Your task to perform on an android device: open chrome and create a bookmark for the current page Image 0: 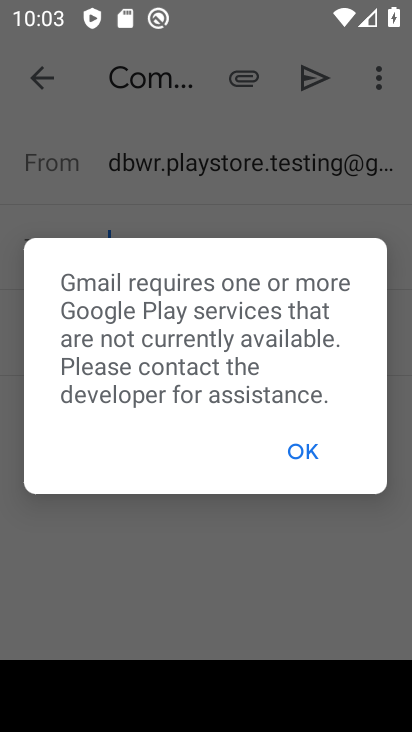
Step 0: click (289, 452)
Your task to perform on an android device: open chrome and create a bookmark for the current page Image 1: 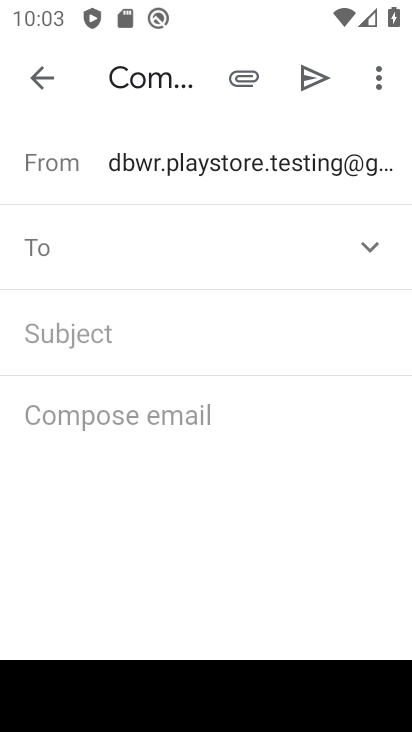
Step 1: click (32, 89)
Your task to perform on an android device: open chrome and create a bookmark for the current page Image 2: 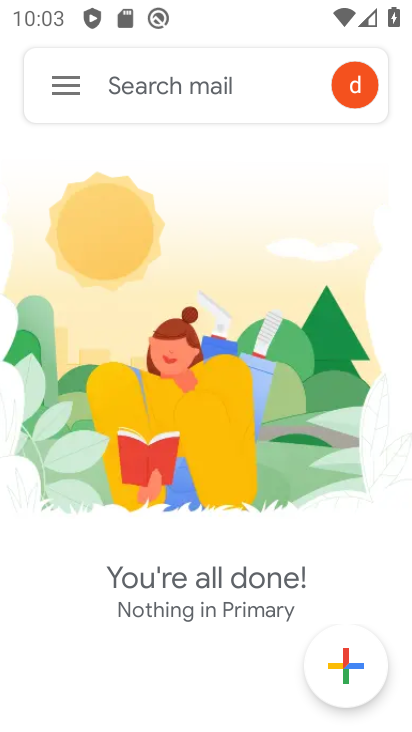
Step 2: press back button
Your task to perform on an android device: open chrome and create a bookmark for the current page Image 3: 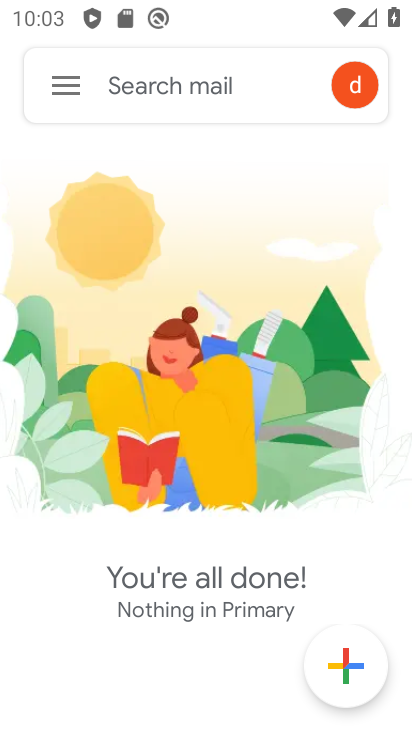
Step 3: press back button
Your task to perform on an android device: open chrome and create a bookmark for the current page Image 4: 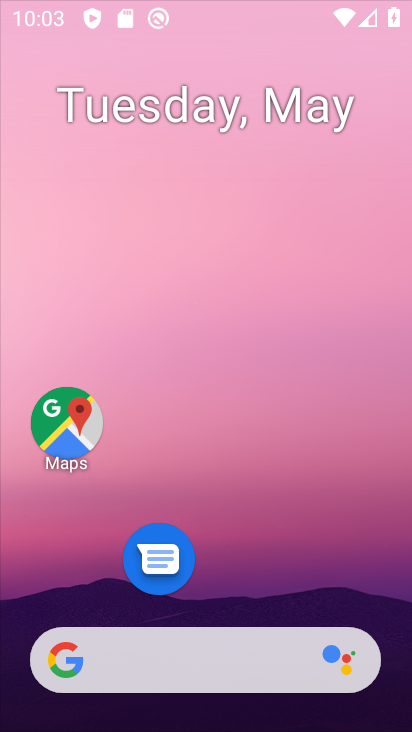
Step 4: press back button
Your task to perform on an android device: open chrome and create a bookmark for the current page Image 5: 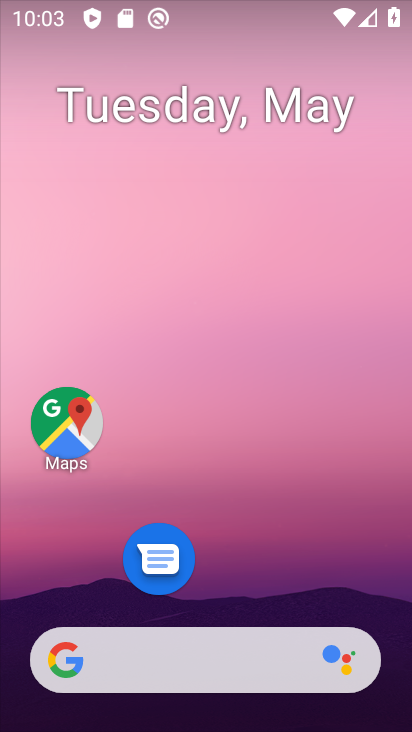
Step 5: drag from (271, 427) to (212, 11)
Your task to perform on an android device: open chrome and create a bookmark for the current page Image 6: 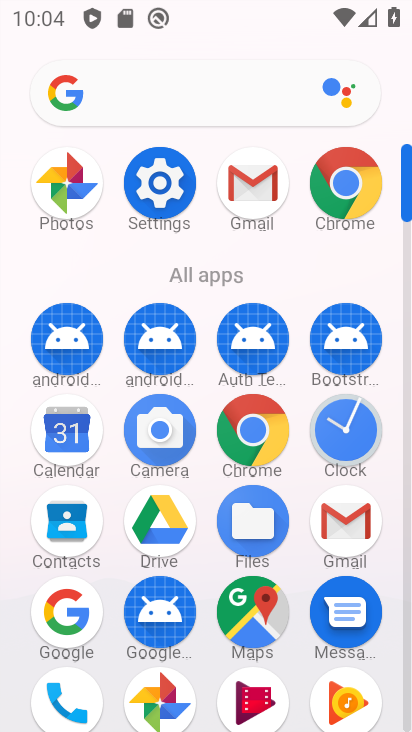
Step 6: click (348, 187)
Your task to perform on an android device: open chrome and create a bookmark for the current page Image 7: 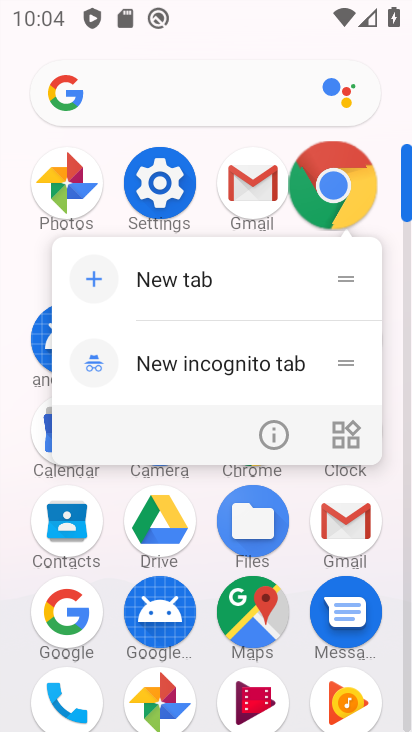
Step 7: click (344, 185)
Your task to perform on an android device: open chrome and create a bookmark for the current page Image 8: 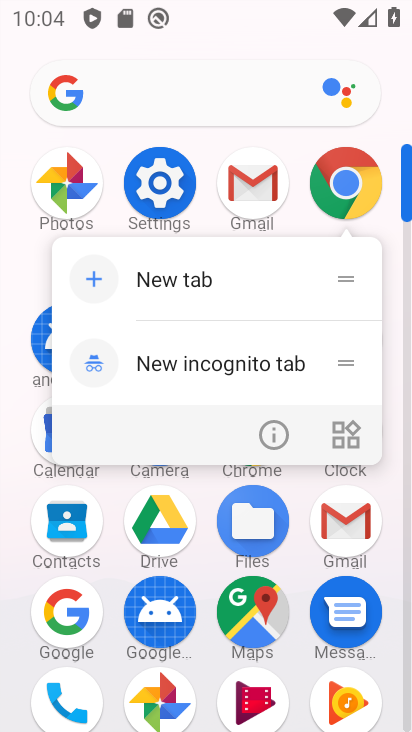
Step 8: click (159, 279)
Your task to perform on an android device: open chrome and create a bookmark for the current page Image 9: 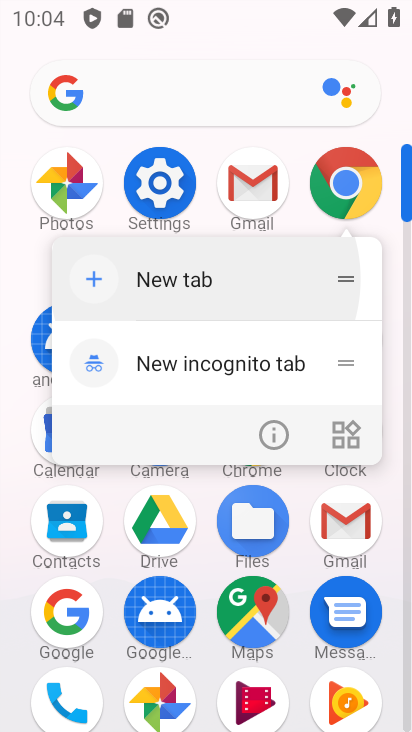
Step 9: click (159, 279)
Your task to perform on an android device: open chrome and create a bookmark for the current page Image 10: 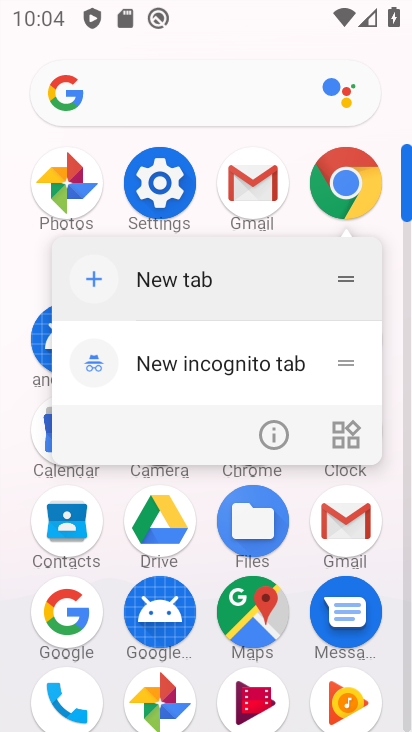
Step 10: click (191, 279)
Your task to perform on an android device: open chrome and create a bookmark for the current page Image 11: 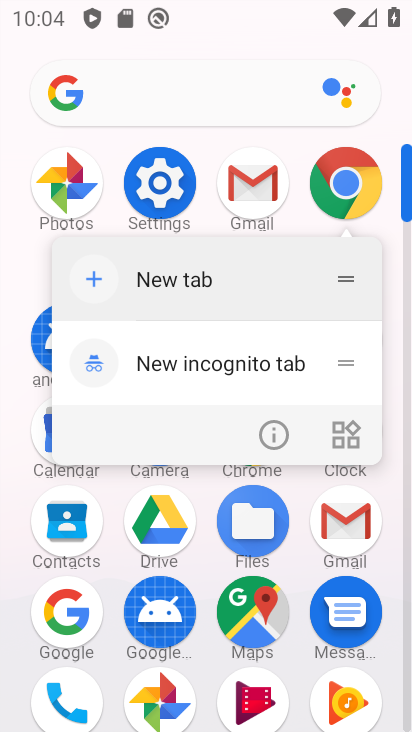
Step 11: click (191, 279)
Your task to perform on an android device: open chrome and create a bookmark for the current page Image 12: 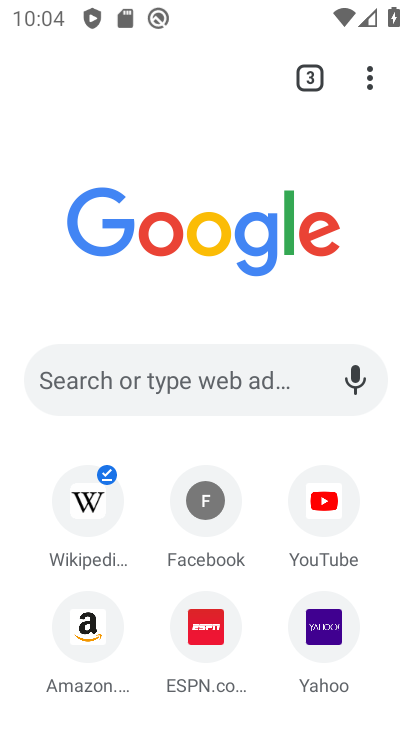
Step 12: drag from (370, 87) to (117, 299)
Your task to perform on an android device: open chrome and create a bookmark for the current page Image 13: 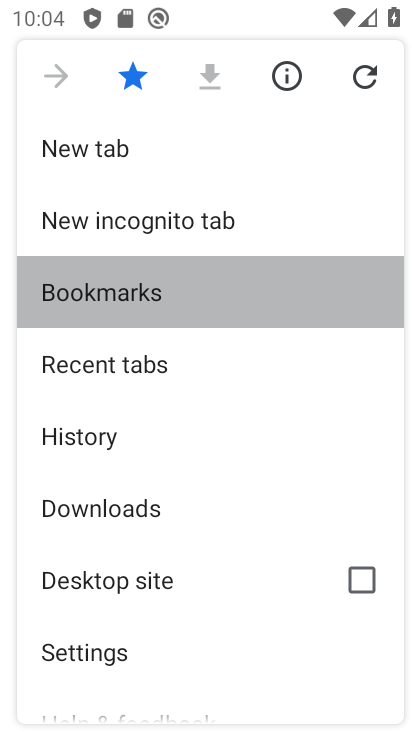
Step 13: click (115, 300)
Your task to perform on an android device: open chrome and create a bookmark for the current page Image 14: 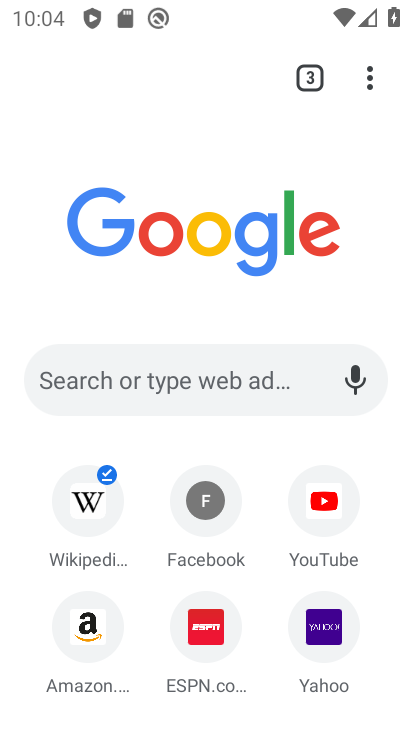
Step 14: click (114, 300)
Your task to perform on an android device: open chrome and create a bookmark for the current page Image 15: 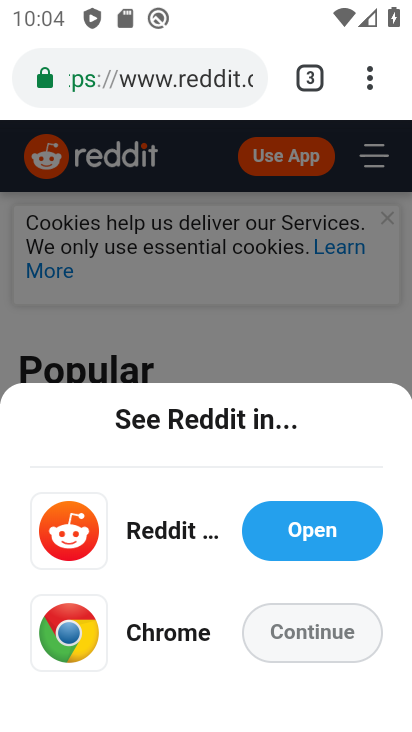
Step 15: task complete